Your task to perform on an android device: move an email to a new category in the gmail app Image 0: 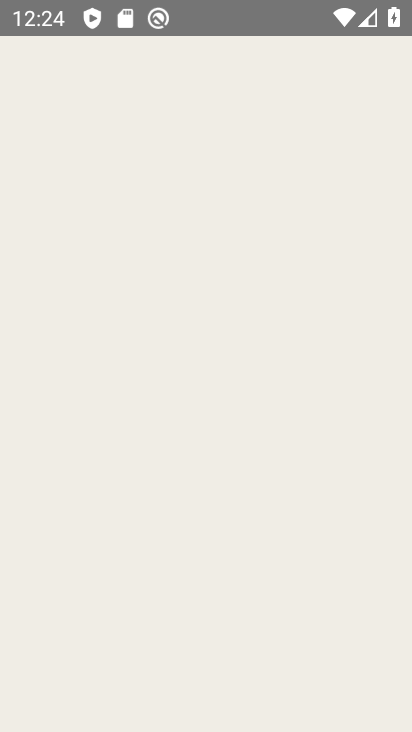
Step 0: click (339, 42)
Your task to perform on an android device: move an email to a new category in the gmail app Image 1: 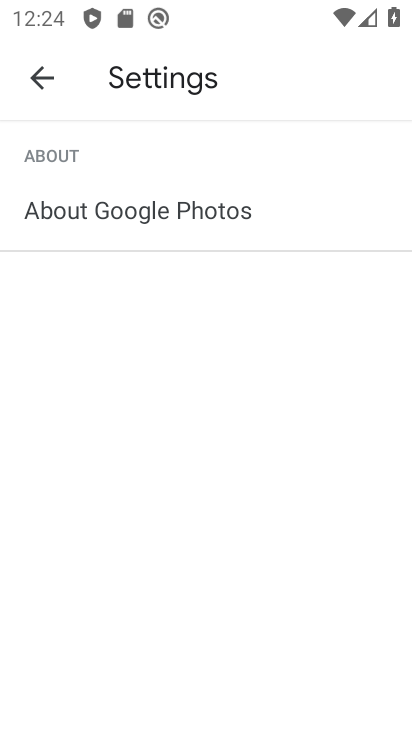
Step 1: press home button
Your task to perform on an android device: move an email to a new category in the gmail app Image 2: 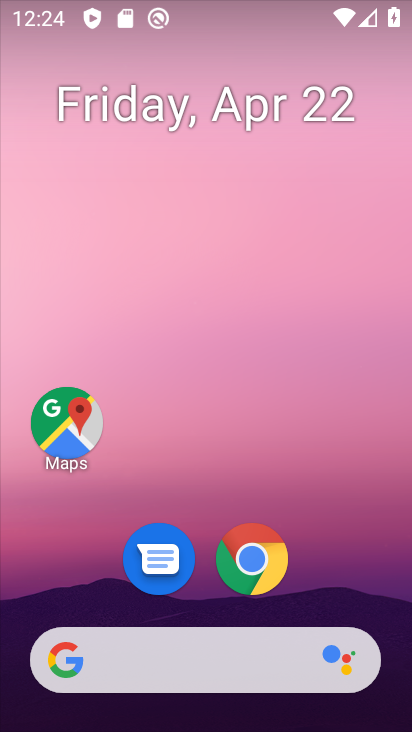
Step 2: drag from (370, 612) to (229, 96)
Your task to perform on an android device: move an email to a new category in the gmail app Image 3: 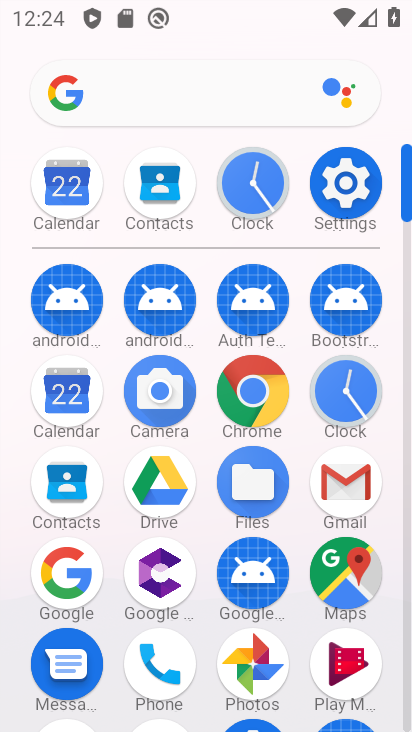
Step 3: click (362, 476)
Your task to perform on an android device: move an email to a new category in the gmail app Image 4: 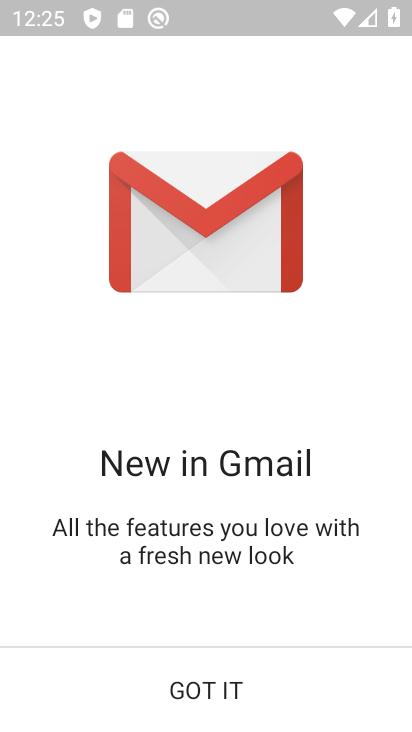
Step 4: click (242, 678)
Your task to perform on an android device: move an email to a new category in the gmail app Image 5: 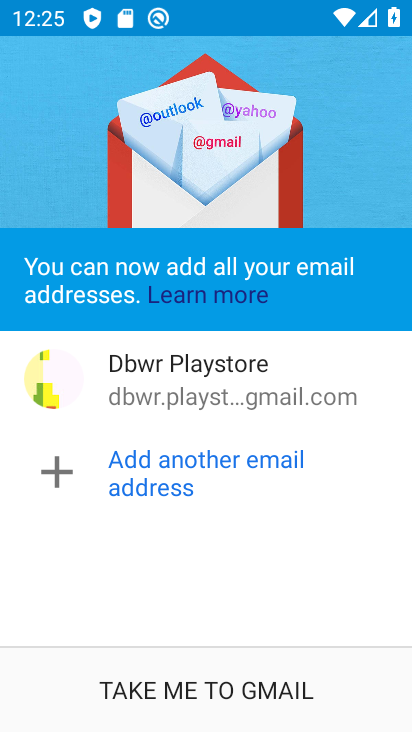
Step 5: click (242, 678)
Your task to perform on an android device: move an email to a new category in the gmail app Image 6: 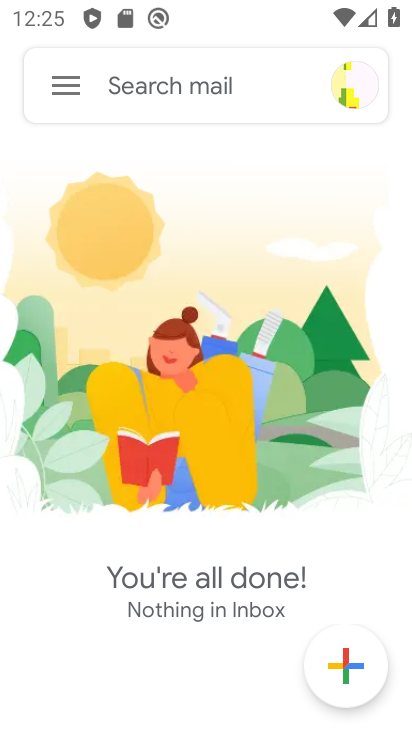
Step 6: task complete